Your task to perform on an android device: delete location history Image 0: 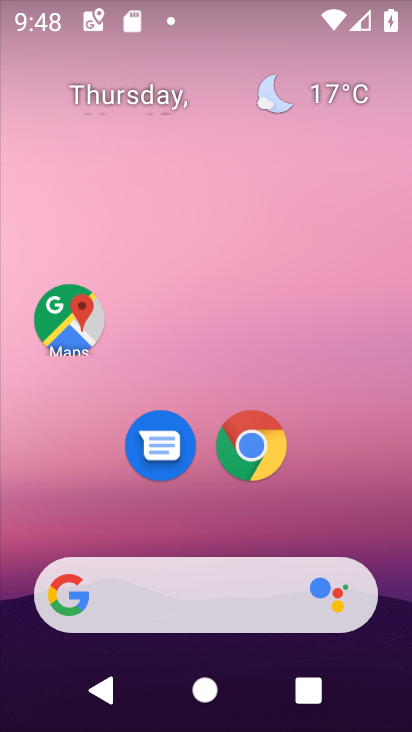
Step 0: drag from (183, 532) to (190, 204)
Your task to perform on an android device: delete location history Image 1: 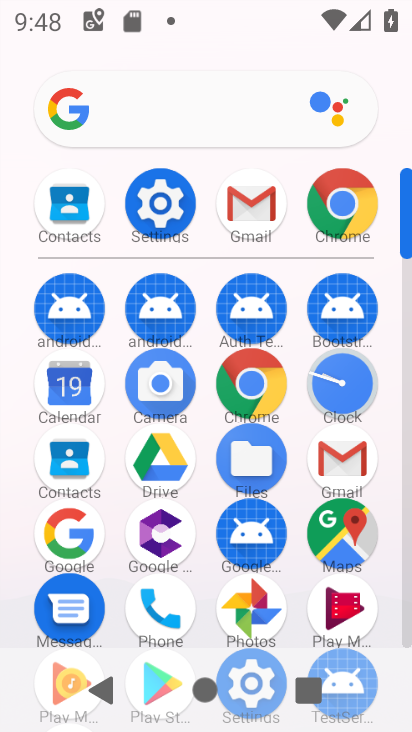
Step 1: click (148, 212)
Your task to perform on an android device: delete location history Image 2: 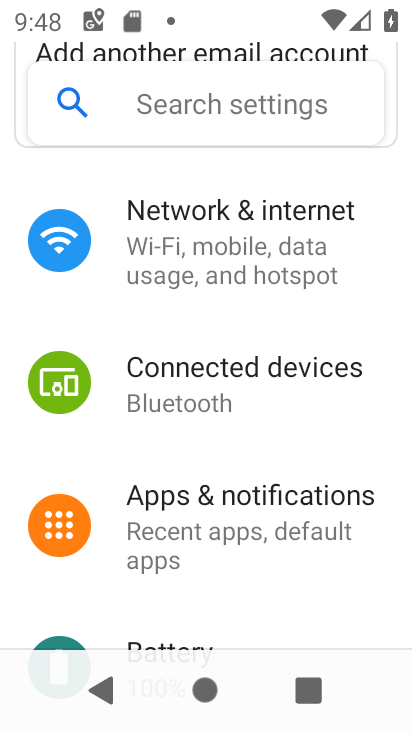
Step 2: drag from (243, 561) to (206, 176)
Your task to perform on an android device: delete location history Image 3: 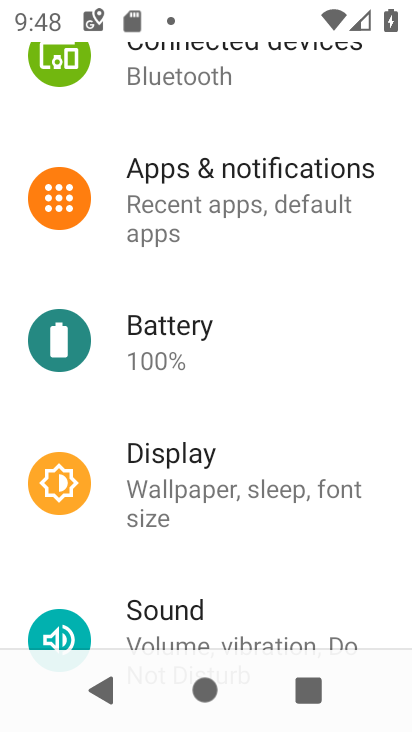
Step 3: drag from (253, 567) to (221, 184)
Your task to perform on an android device: delete location history Image 4: 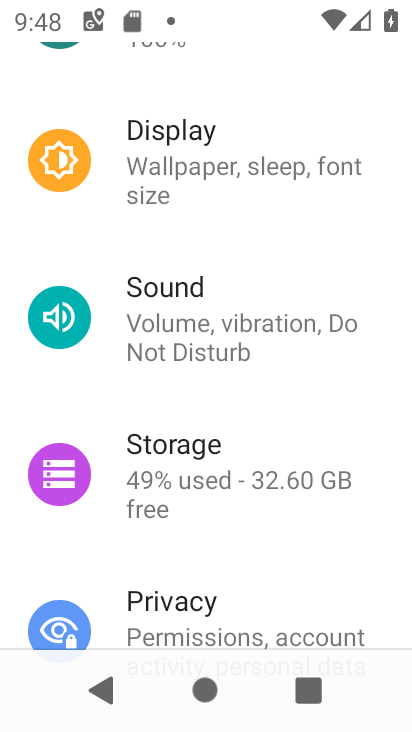
Step 4: drag from (274, 576) to (263, 264)
Your task to perform on an android device: delete location history Image 5: 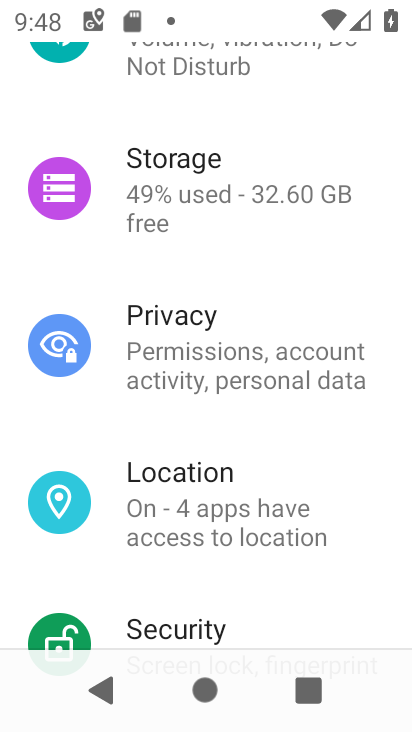
Step 5: click (236, 524)
Your task to perform on an android device: delete location history Image 6: 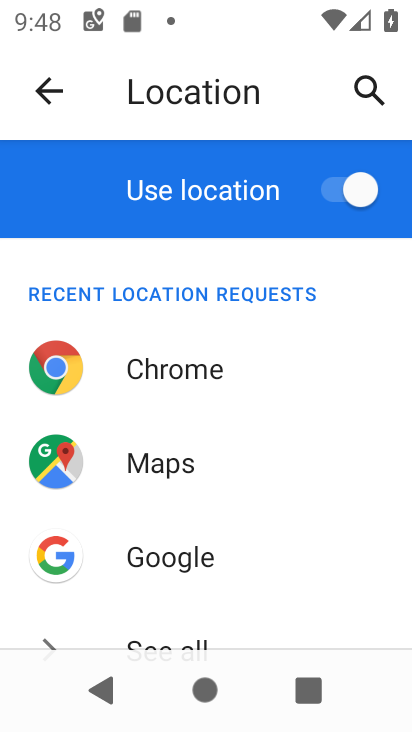
Step 6: drag from (249, 592) to (253, 2)
Your task to perform on an android device: delete location history Image 7: 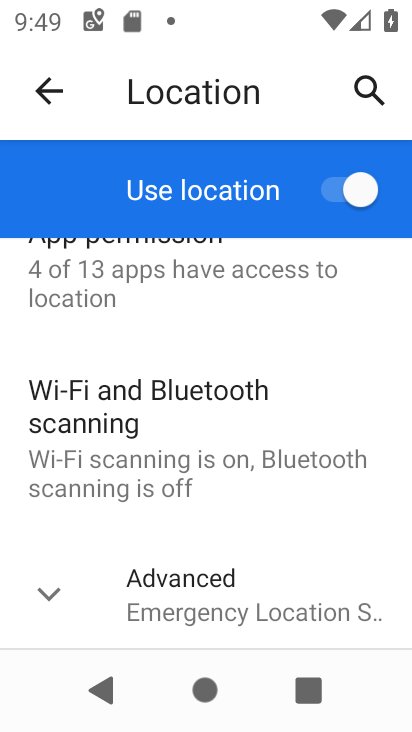
Step 7: click (153, 615)
Your task to perform on an android device: delete location history Image 8: 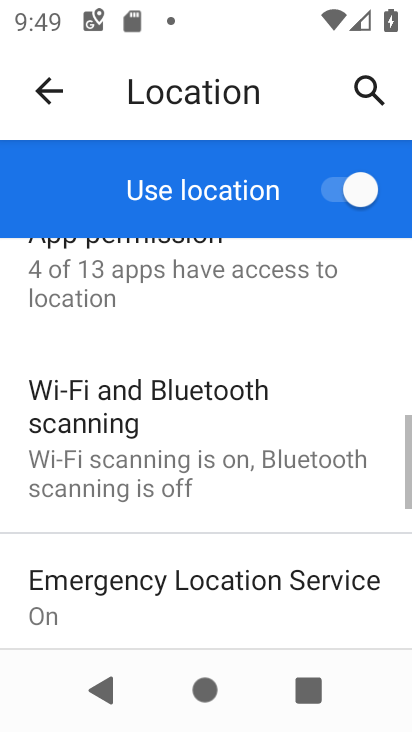
Step 8: drag from (163, 557) to (199, 76)
Your task to perform on an android device: delete location history Image 9: 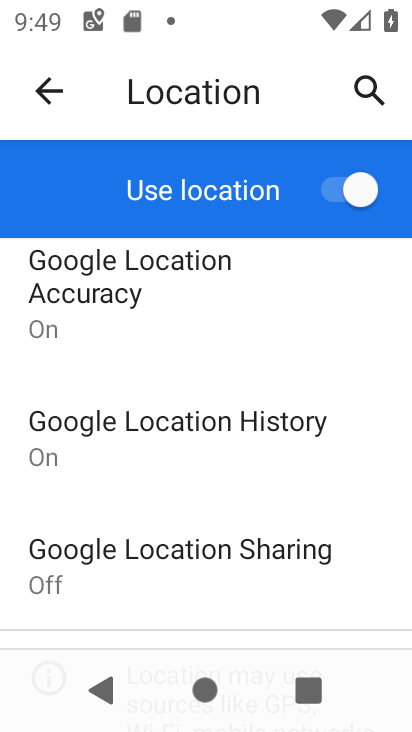
Step 9: click (238, 447)
Your task to perform on an android device: delete location history Image 10: 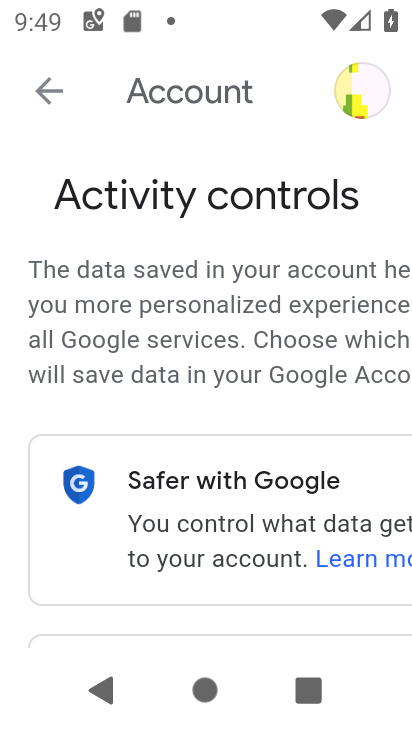
Step 10: drag from (282, 608) to (282, 283)
Your task to perform on an android device: delete location history Image 11: 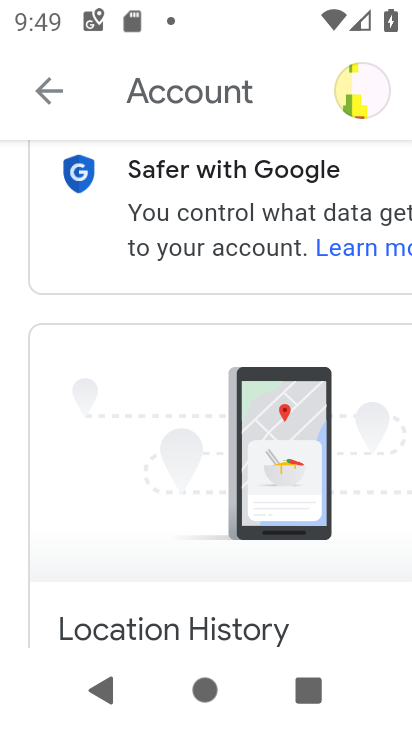
Step 11: drag from (153, 616) to (148, 15)
Your task to perform on an android device: delete location history Image 12: 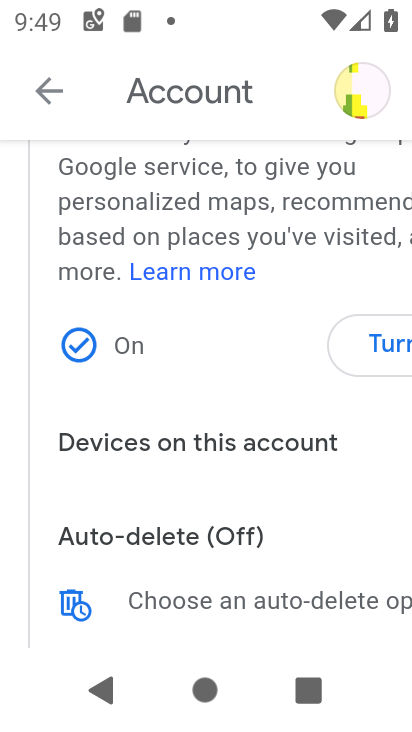
Step 12: drag from (229, 570) to (237, 372)
Your task to perform on an android device: delete location history Image 13: 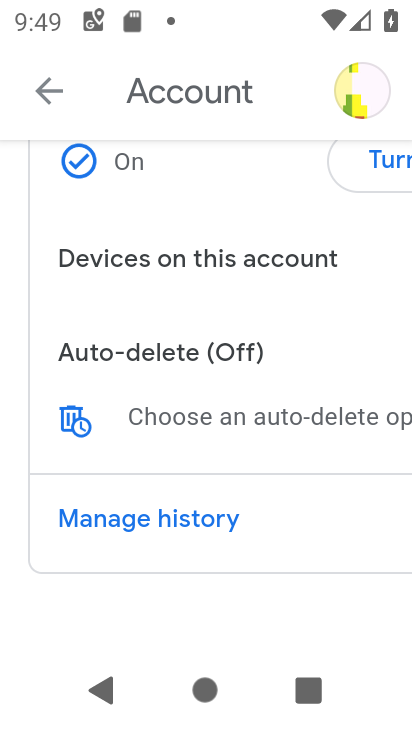
Step 13: click (287, 414)
Your task to perform on an android device: delete location history Image 14: 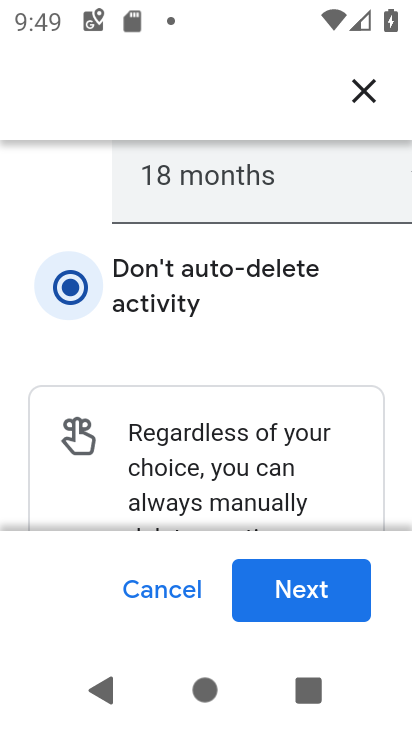
Step 14: click (201, 214)
Your task to perform on an android device: delete location history Image 15: 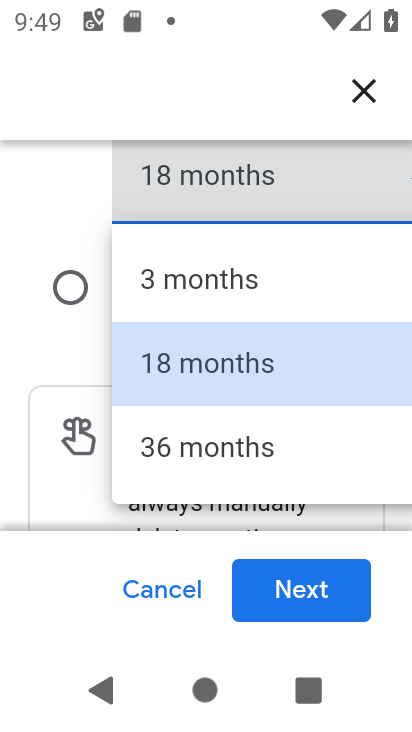
Step 15: click (205, 315)
Your task to perform on an android device: delete location history Image 16: 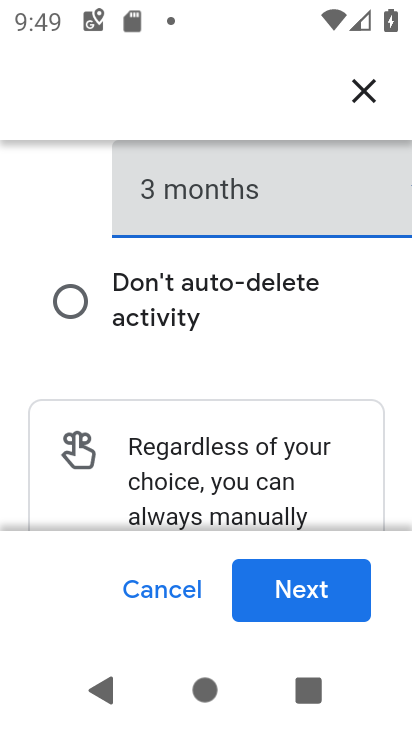
Step 16: click (320, 589)
Your task to perform on an android device: delete location history Image 17: 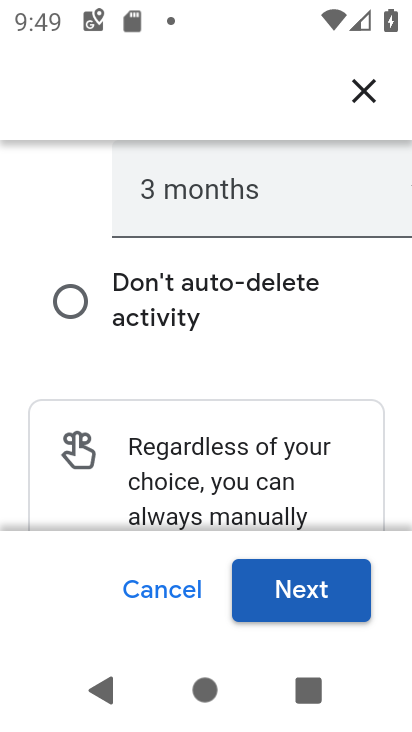
Step 17: click (317, 596)
Your task to perform on an android device: delete location history Image 18: 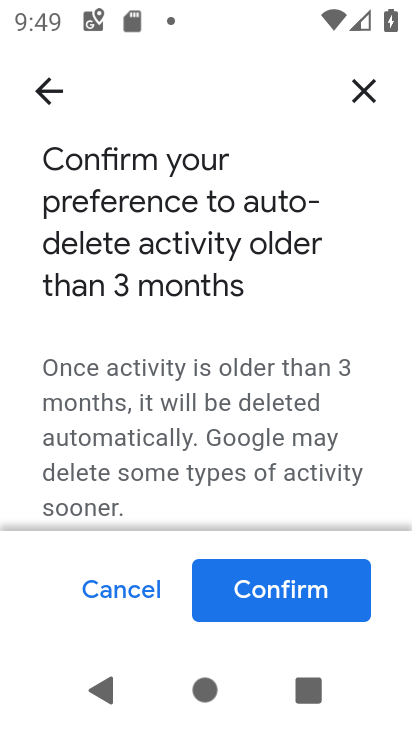
Step 18: click (308, 606)
Your task to perform on an android device: delete location history Image 19: 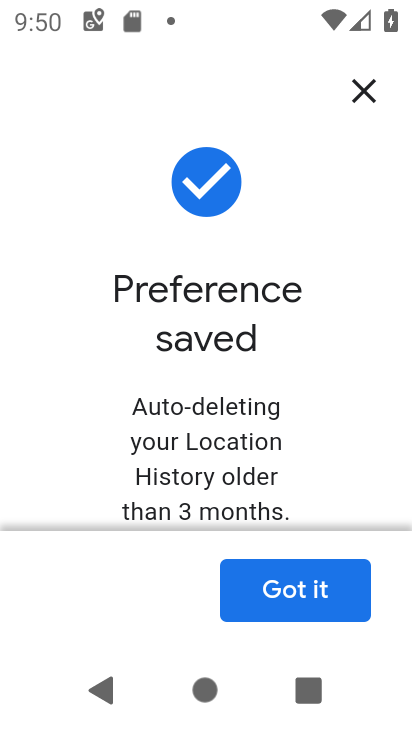
Step 19: click (265, 586)
Your task to perform on an android device: delete location history Image 20: 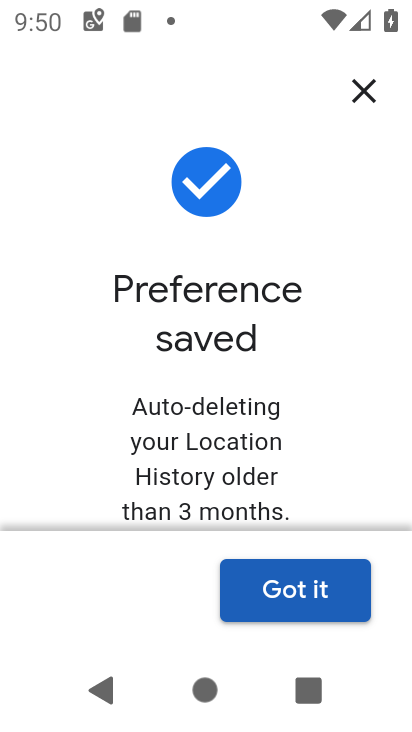
Step 20: click (319, 580)
Your task to perform on an android device: delete location history Image 21: 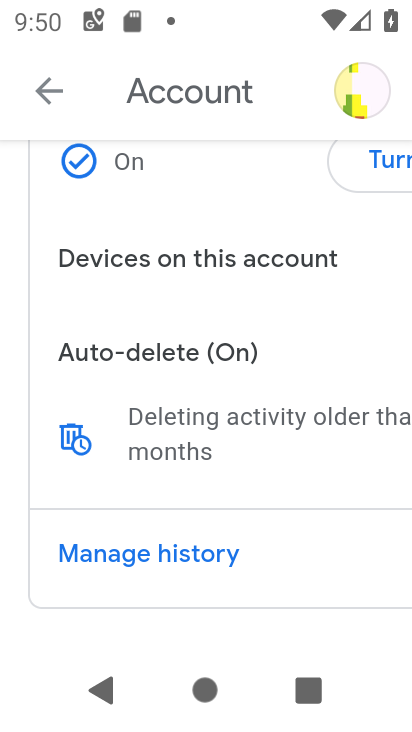
Step 21: task complete